Your task to perform on an android device: show emergency info Image 0: 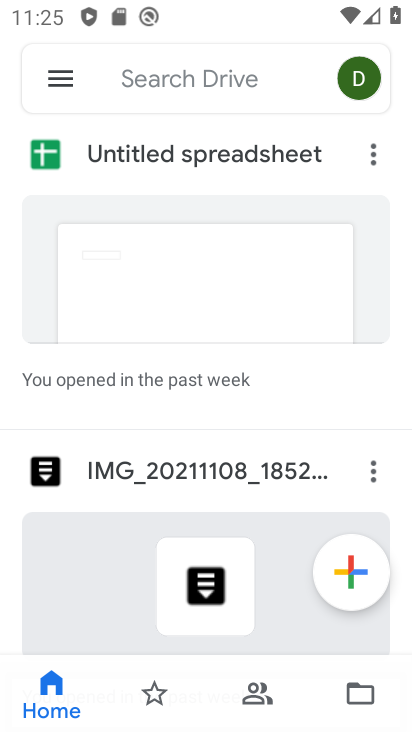
Step 0: task complete